Your task to perform on an android device: turn off airplane mode Image 0: 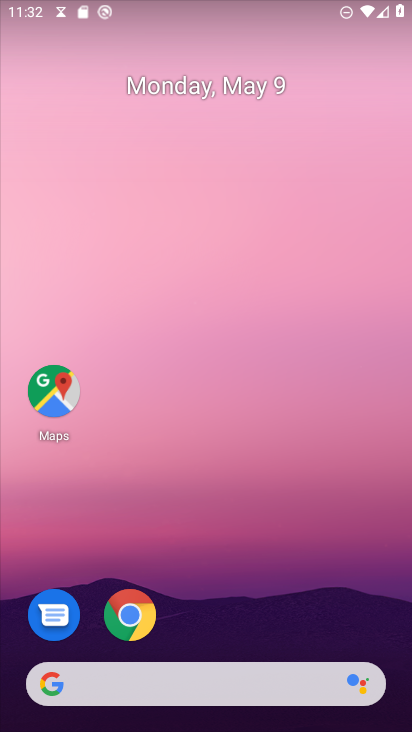
Step 0: drag from (219, 726) to (211, 201)
Your task to perform on an android device: turn off airplane mode Image 1: 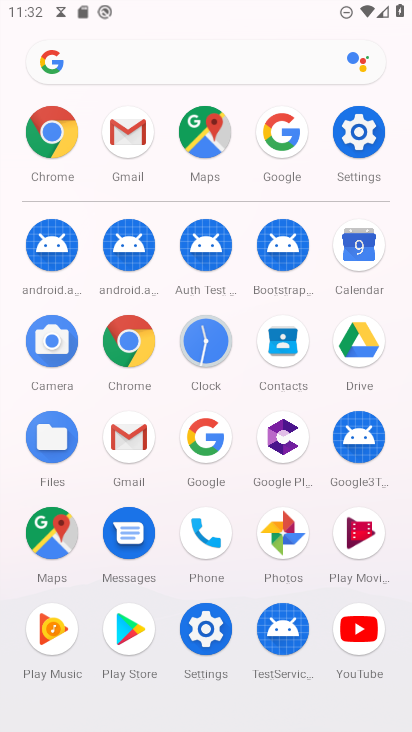
Step 1: click (359, 125)
Your task to perform on an android device: turn off airplane mode Image 2: 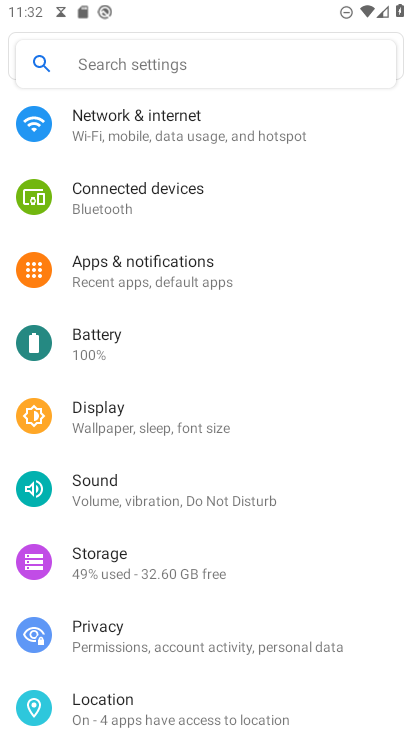
Step 2: drag from (245, 189) to (261, 556)
Your task to perform on an android device: turn off airplane mode Image 3: 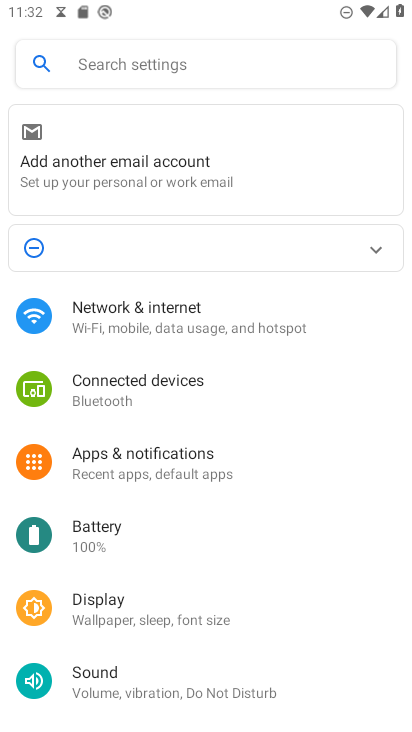
Step 3: click (139, 320)
Your task to perform on an android device: turn off airplane mode Image 4: 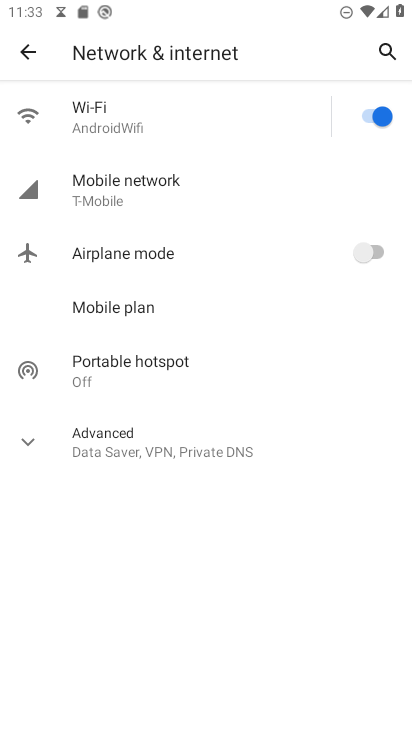
Step 4: task complete